Your task to perform on an android device: allow cookies in the chrome app Image 0: 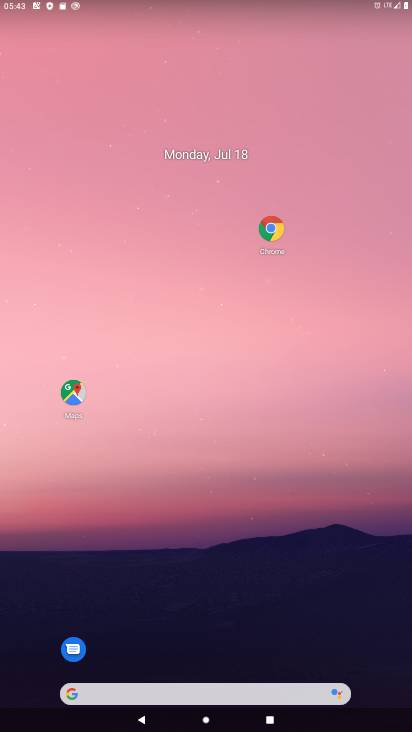
Step 0: click (270, 233)
Your task to perform on an android device: allow cookies in the chrome app Image 1: 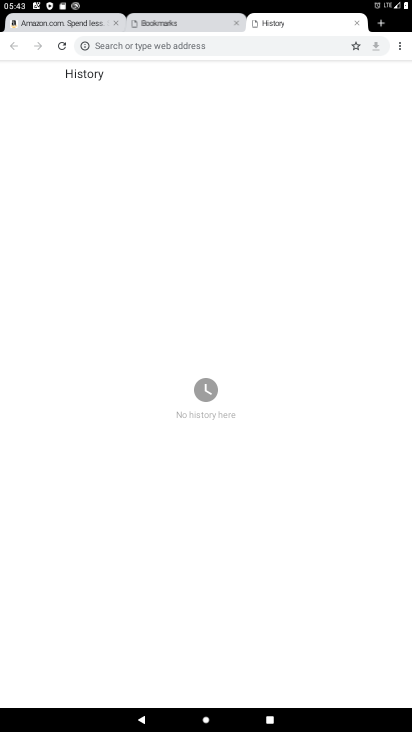
Step 1: click (270, 233)
Your task to perform on an android device: allow cookies in the chrome app Image 2: 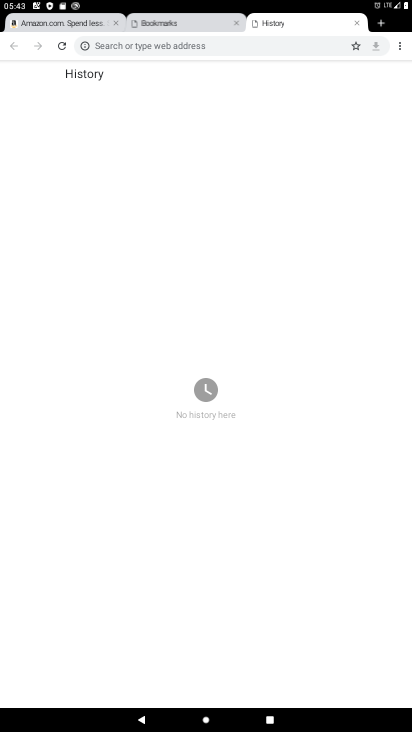
Step 2: click (380, 28)
Your task to perform on an android device: allow cookies in the chrome app Image 3: 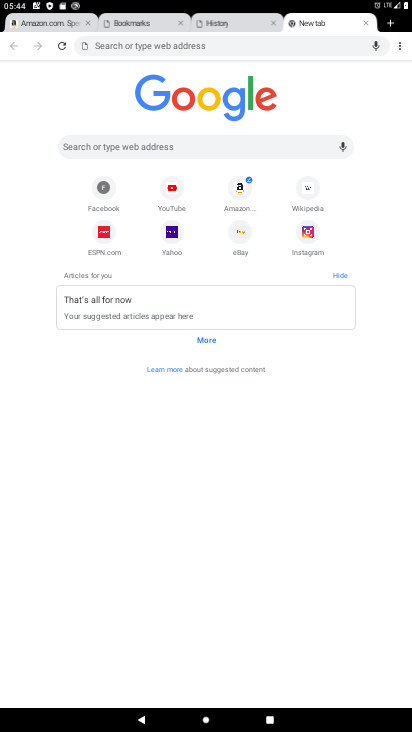
Step 3: click (401, 44)
Your task to perform on an android device: allow cookies in the chrome app Image 4: 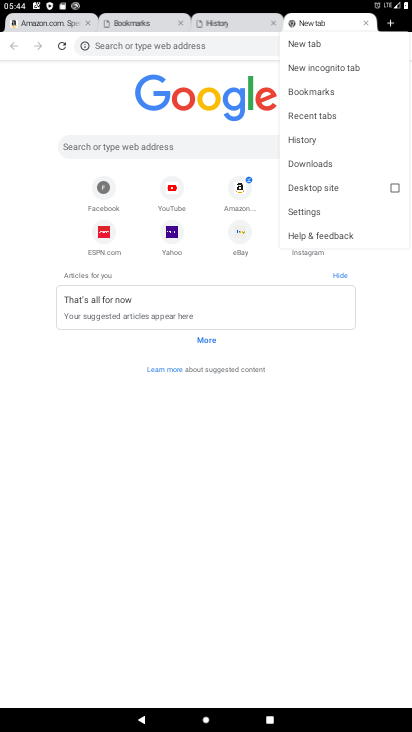
Step 4: click (320, 210)
Your task to perform on an android device: allow cookies in the chrome app Image 5: 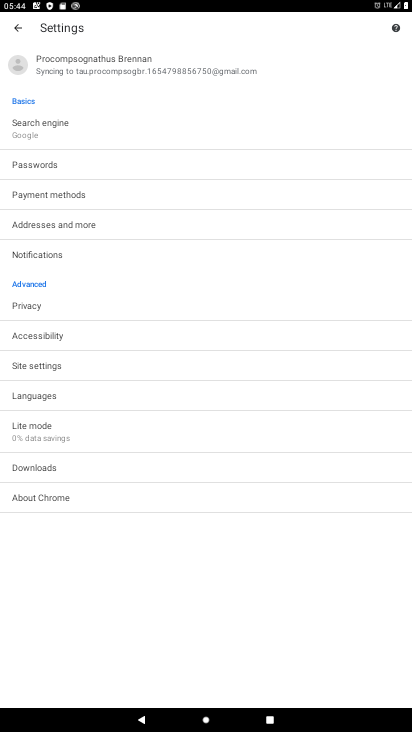
Step 5: click (67, 371)
Your task to perform on an android device: allow cookies in the chrome app Image 6: 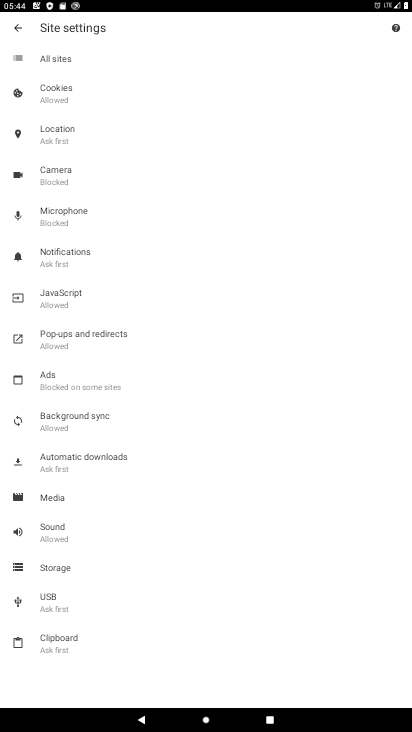
Step 6: click (94, 88)
Your task to perform on an android device: allow cookies in the chrome app Image 7: 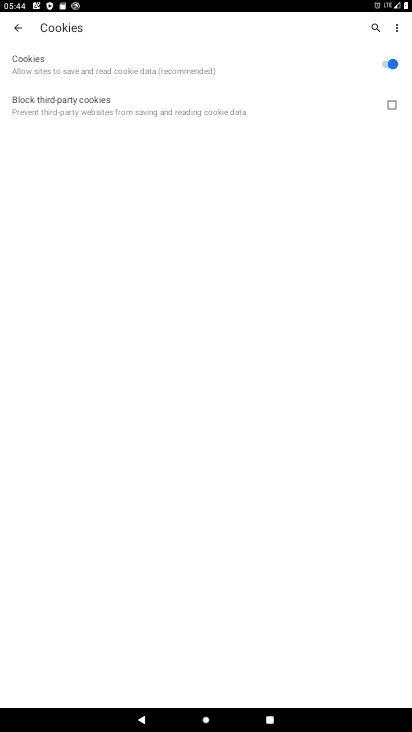
Step 7: task complete